Your task to perform on an android device: turn on wifi Image 0: 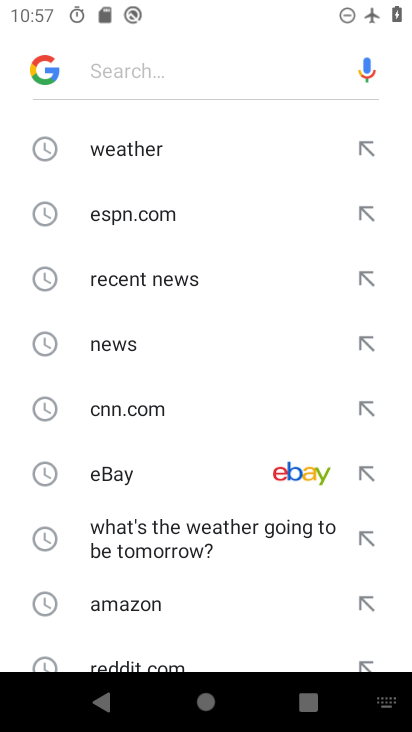
Step 0: press home button
Your task to perform on an android device: turn on wifi Image 1: 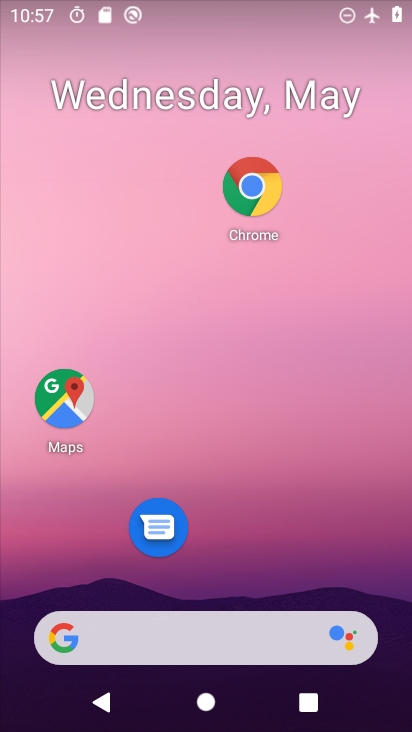
Step 1: drag from (188, 620) to (195, 61)
Your task to perform on an android device: turn on wifi Image 2: 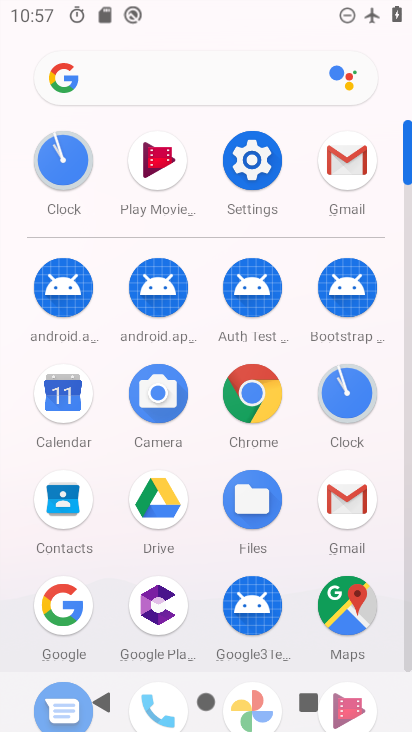
Step 2: click (256, 172)
Your task to perform on an android device: turn on wifi Image 3: 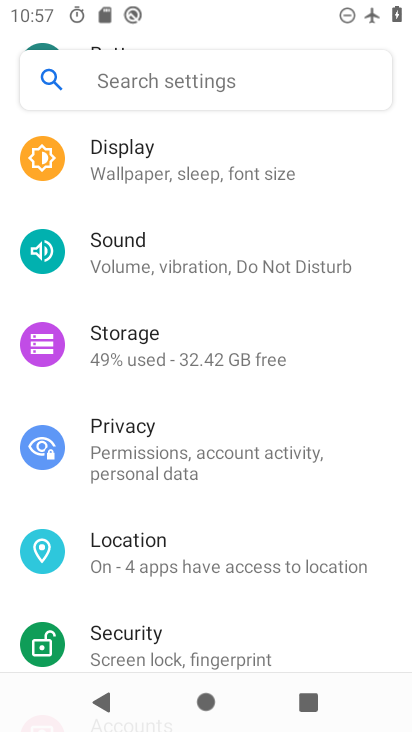
Step 3: drag from (294, 255) to (165, 652)
Your task to perform on an android device: turn on wifi Image 4: 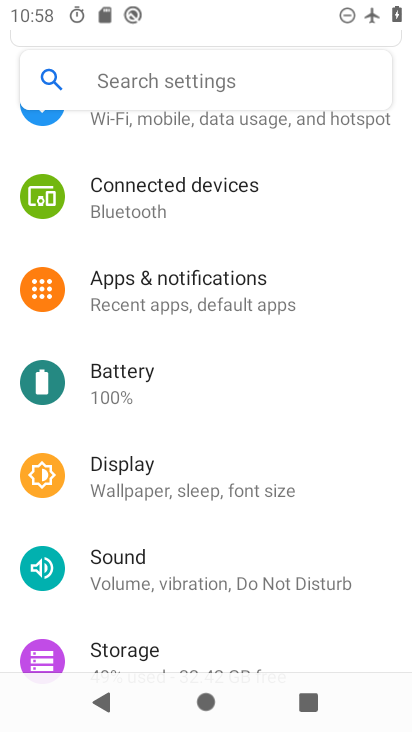
Step 4: drag from (251, 214) to (129, 722)
Your task to perform on an android device: turn on wifi Image 5: 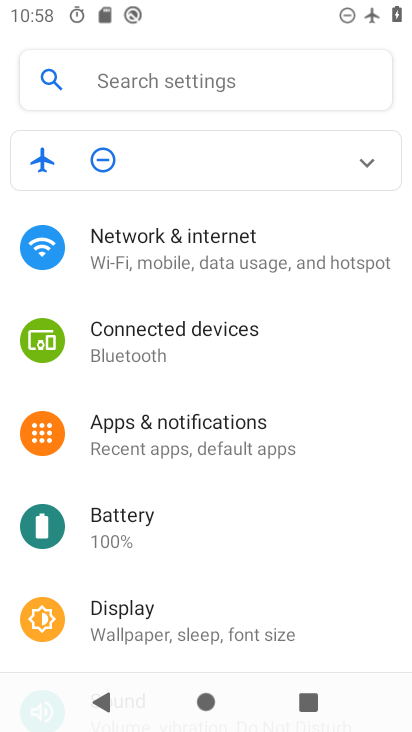
Step 5: click (223, 269)
Your task to perform on an android device: turn on wifi Image 6: 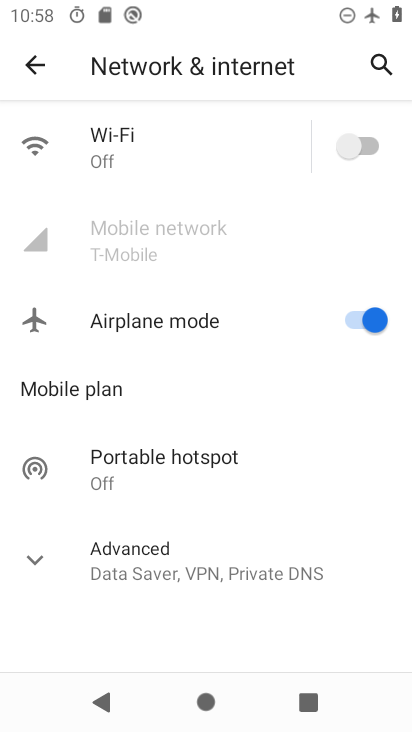
Step 6: click (194, 158)
Your task to perform on an android device: turn on wifi Image 7: 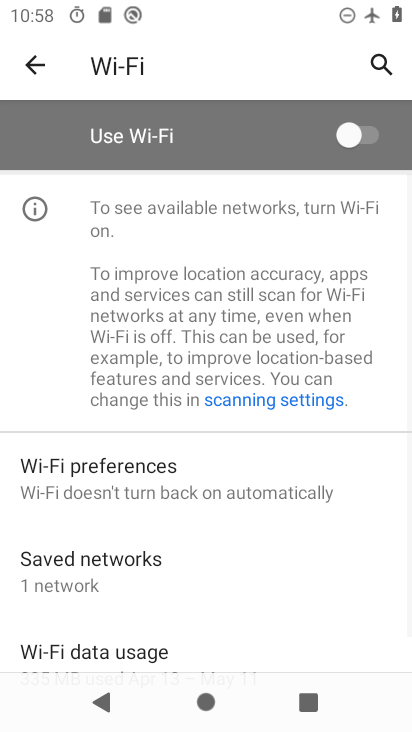
Step 7: click (355, 130)
Your task to perform on an android device: turn on wifi Image 8: 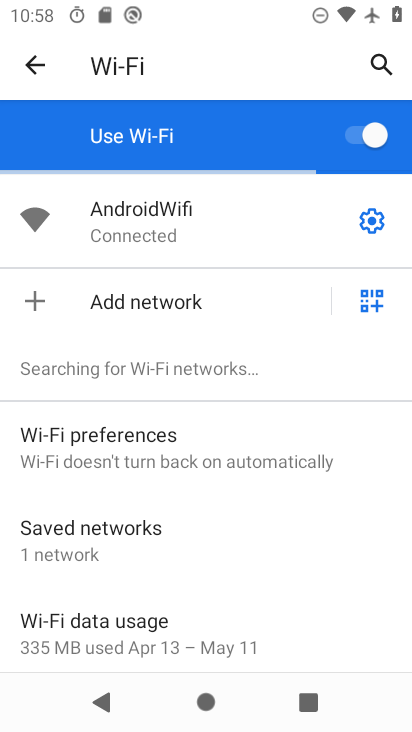
Step 8: task complete